Your task to perform on an android device: set an alarm Image 0: 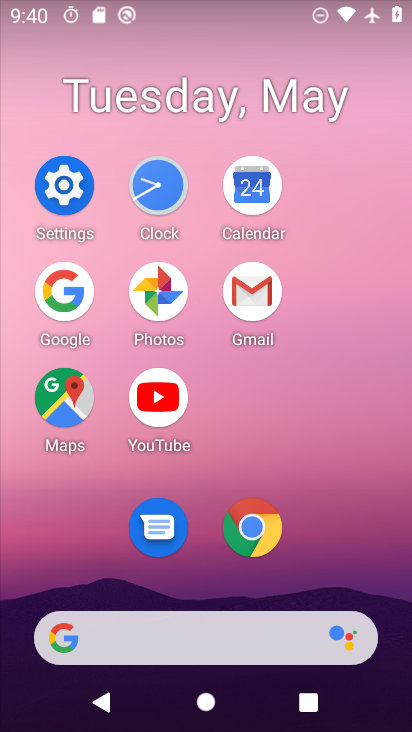
Step 0: click (177, 193)
Your task to perform on an android device: set an alarm Image 1: 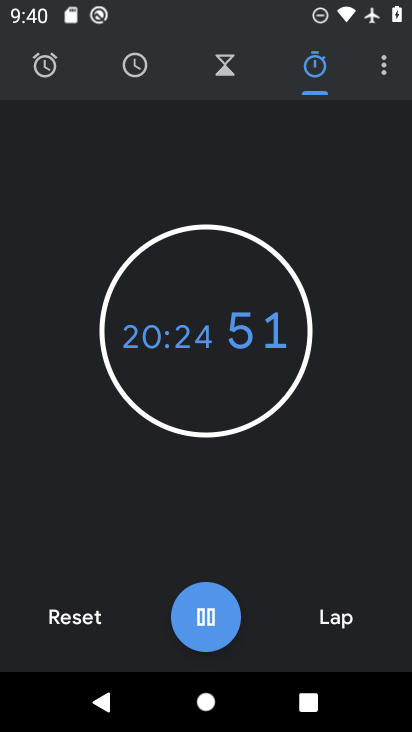
Step 1: click (47, 73)
Your task to perform on an android device: set an alarm Image 2: 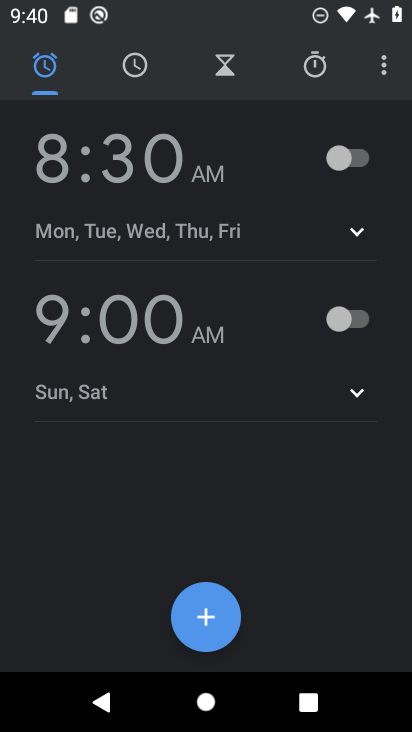
Step 2: click (360, 163)
Your task to perform on an android device: set an alarm Image 3: 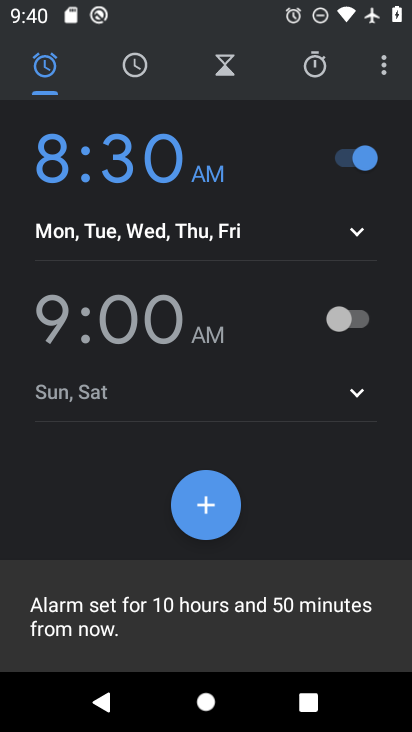
Step 3: task complete